Your task to perform on an android device: Go to Wikipedia Image 0: 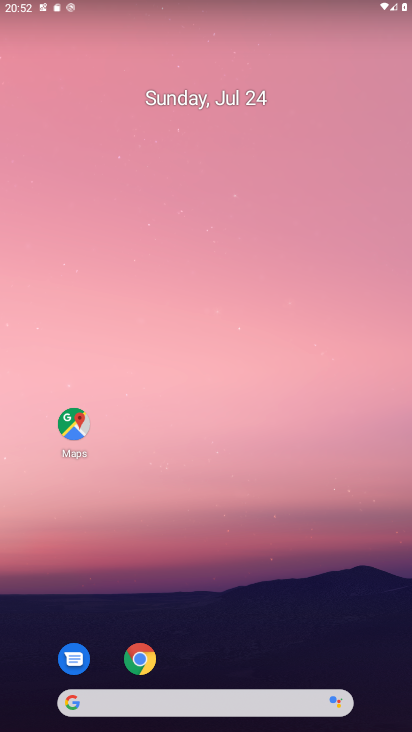
Step 0: click (143, 658)
Your task to perform on an android device: Go to Wikipedia Image 1: 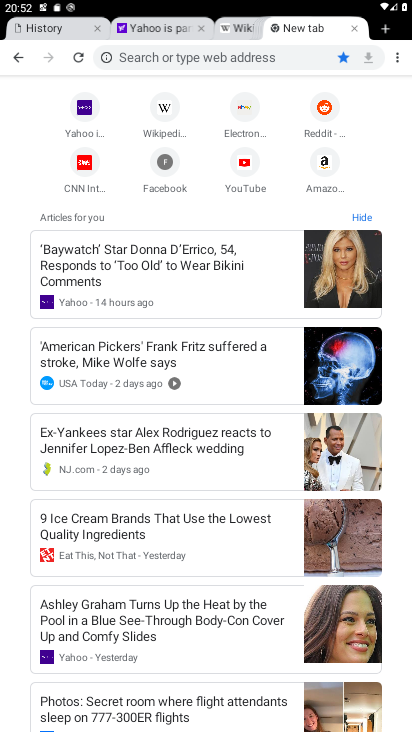
Step 1: click (166, 108)
Your task to perform on an android device: Go to Wikipedia Image 2: 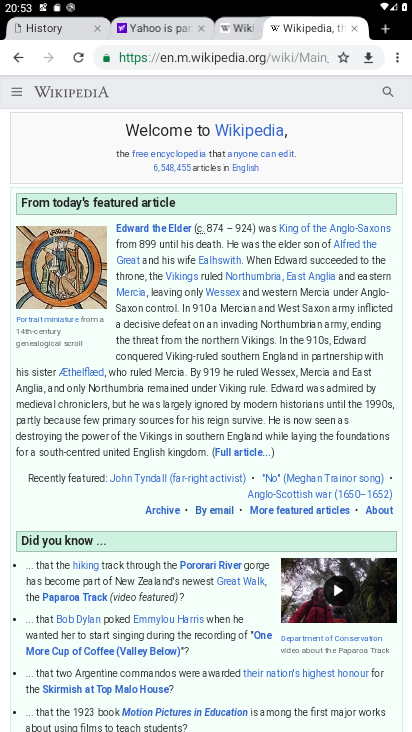
Step 2: task complete